Your task to perform on an android device: choose inbox layout in the gmail app Image 0: 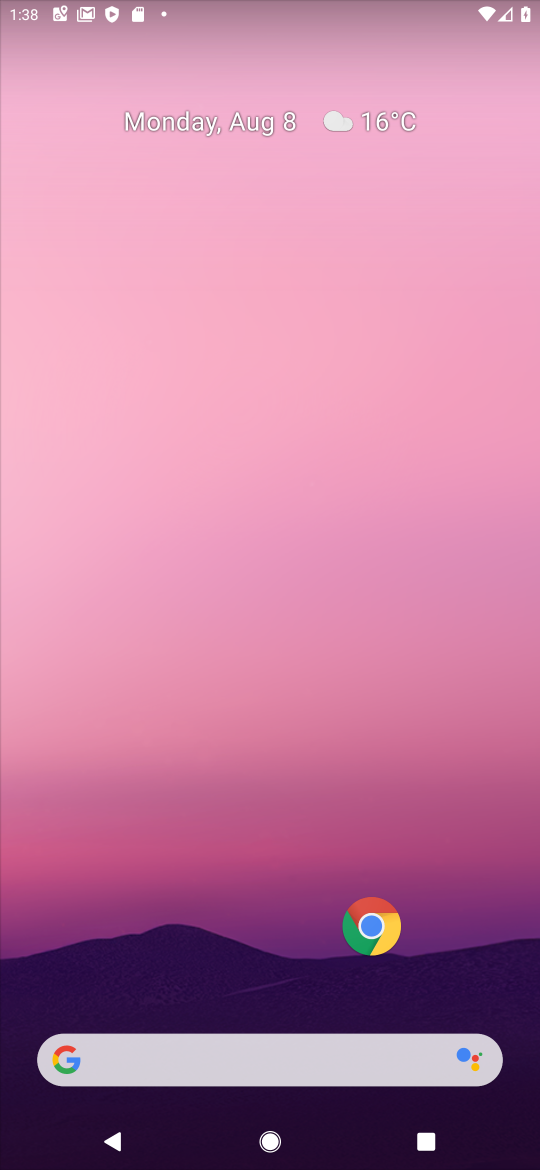
Step 0: drag from (326, 1002) to (319, 224)
Your task to perform on an android device: choose inbox layout in the gmail app Image 1: 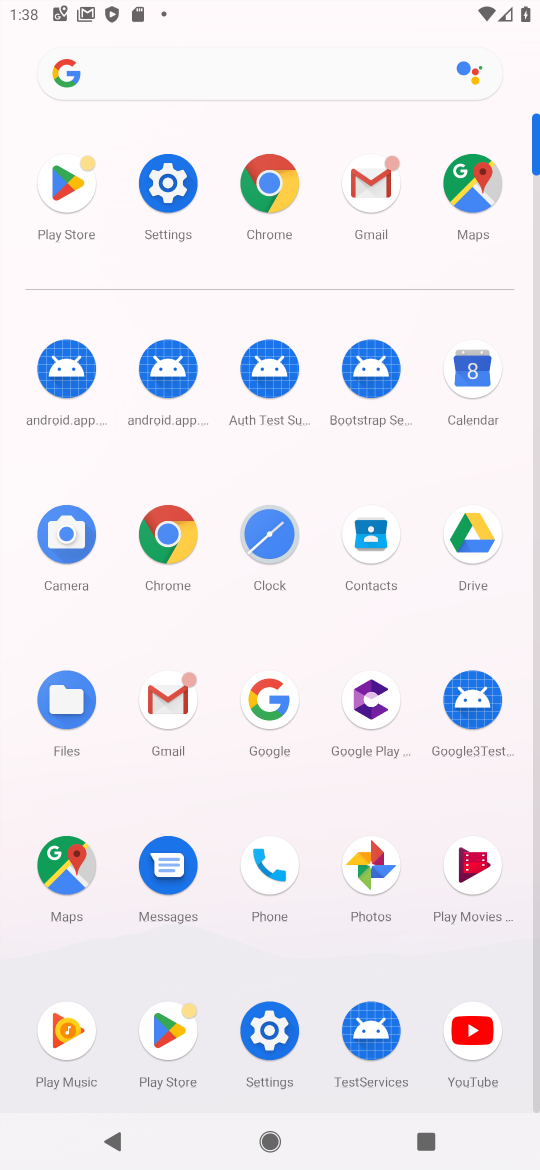
Step 1: click (372, 176)
Your task to perform on an android device: choose inbox layout in the gmail app Image 2: 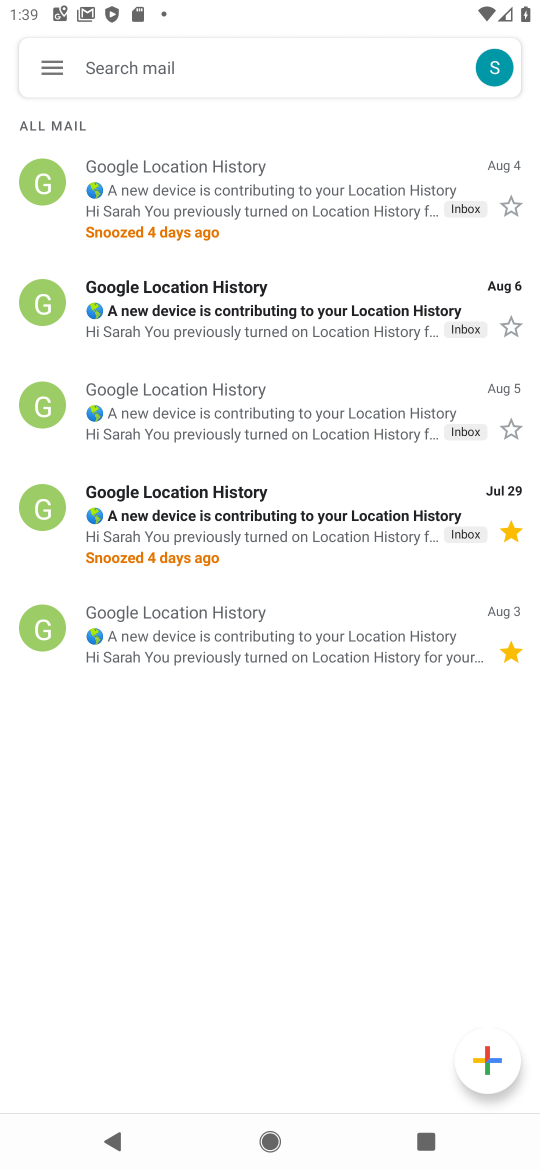
Step 2: click (63, 55)
Your task to perform on an android device: choose inbox layout in the gmail app Image 3: 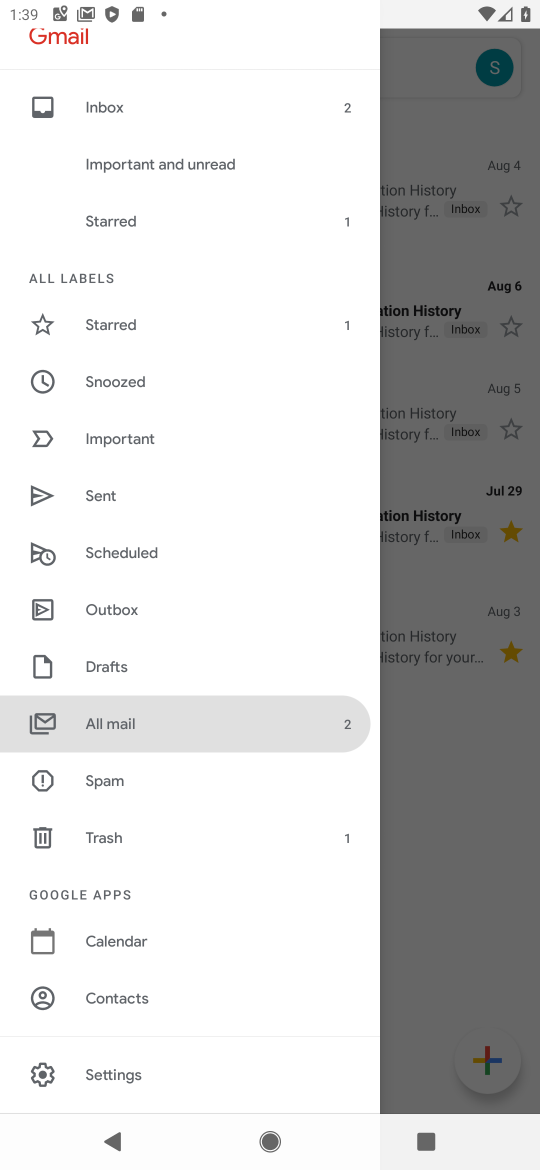
Step 3: click (146, 1063)
Your task to perform on an android device: choose inbox layout in the gmail app Image 4: 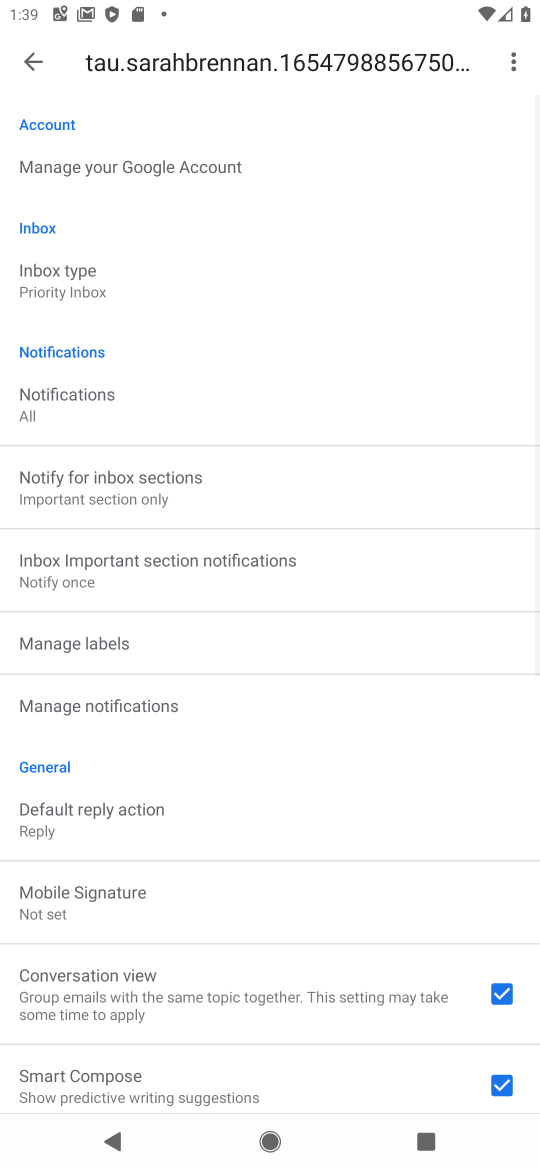
Step 4: click (112, 281)
Your task to perform on an android device: choose inbox layout in the gmail app Image 5: 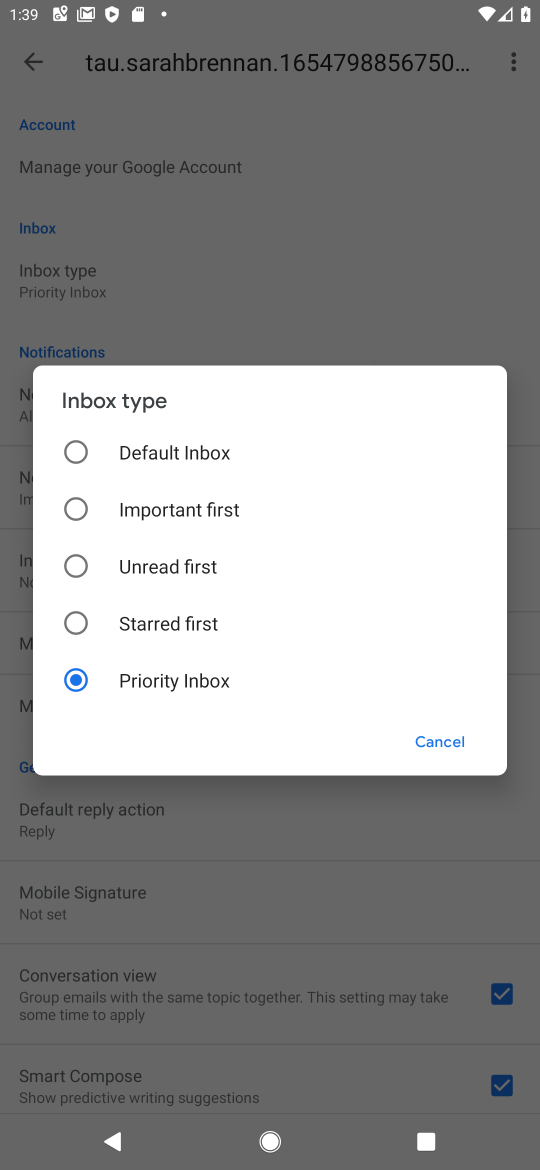
Step 5: click (142, 463)
Your task to perform on an android device: choose inbox layout in the gmail app Image 6: 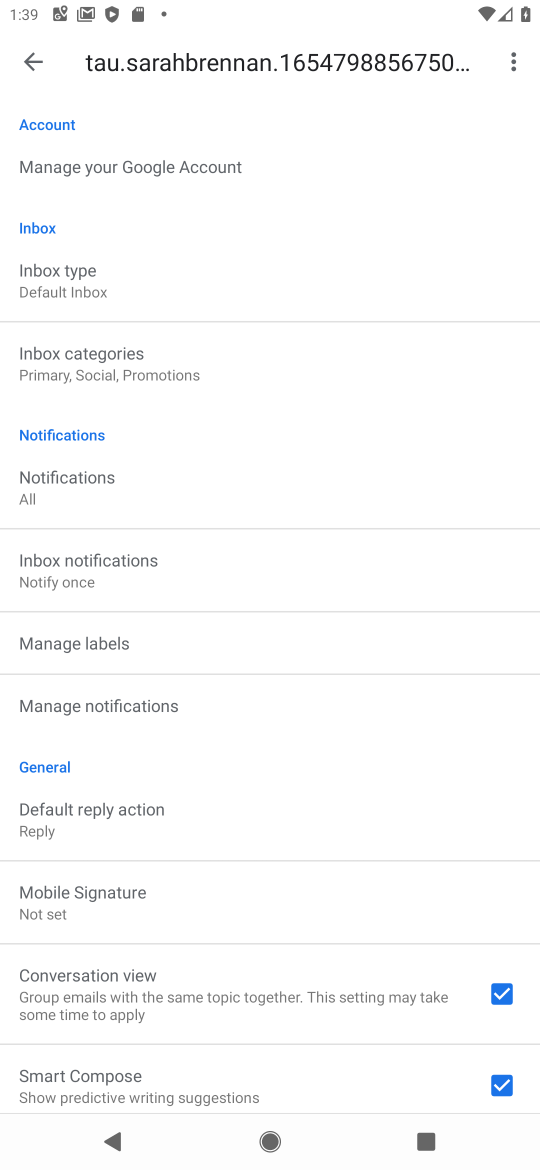
Step 6: task complete